Your task to perform on an android device: Go to location settings Image 0: 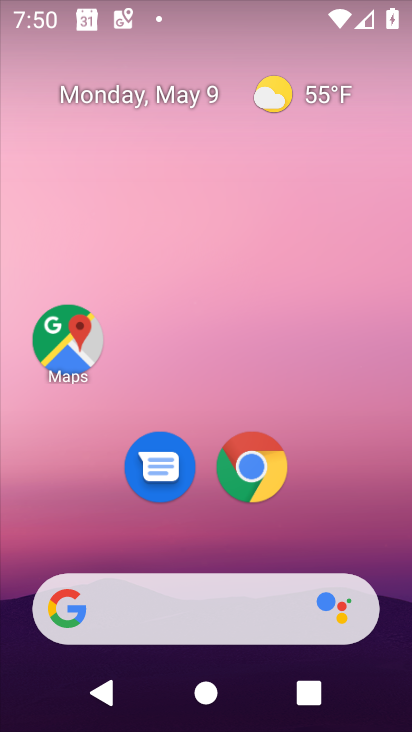
Step 0: drag from (362, 548) to (293, 4)
Your task to perform on an android device: Go to location settings Image 1: 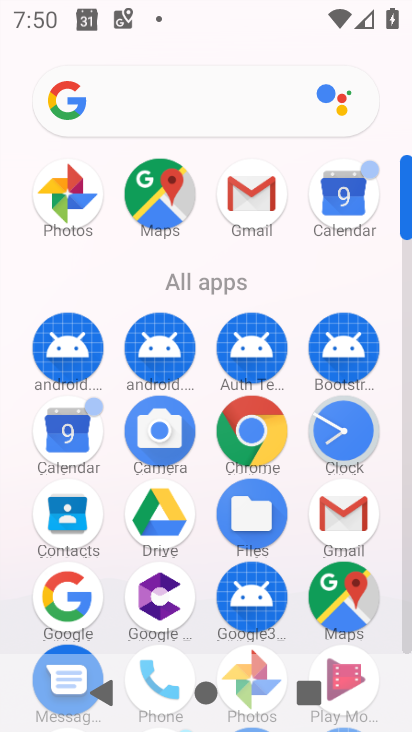
Step 1: drag from (410, 555) to (412, 476)
Your task to perform on an android device: Go to location settings Image 2: 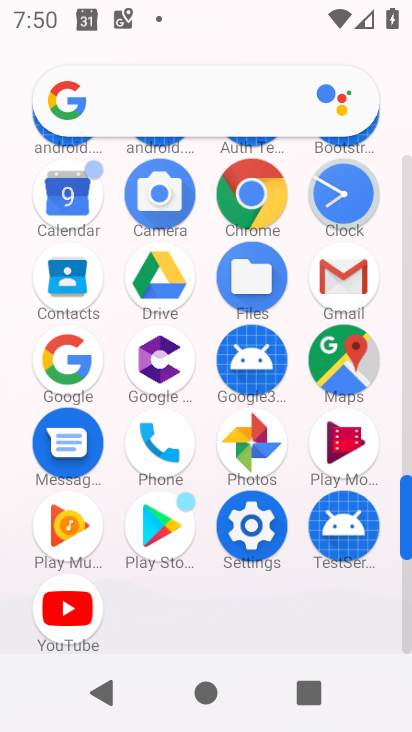
Step 2: click (259, 529)
Your task to perform on an android device: Go to location settings Image 3: 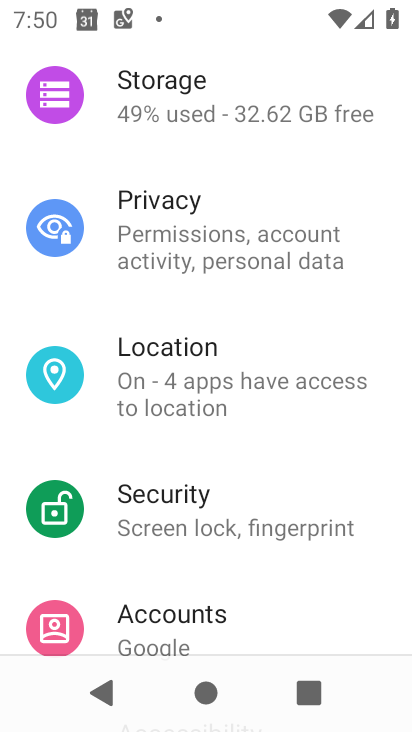
Step 3: click (136, 390)
Your task to perform on an android device: Go to location settings Image 4: 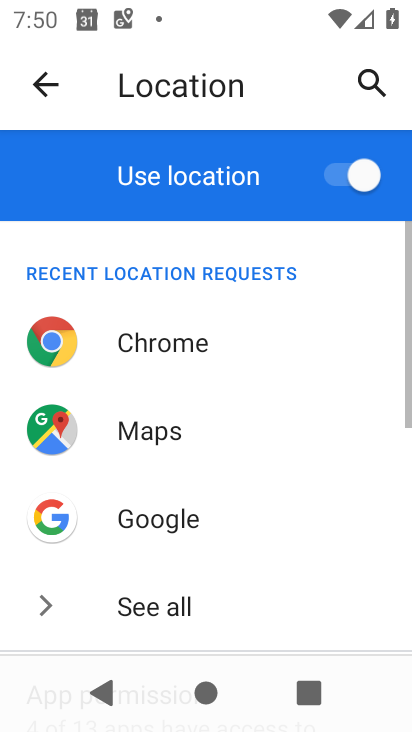
Step 4: task complete